Your task to perform on an android device: Check the news Image 0: 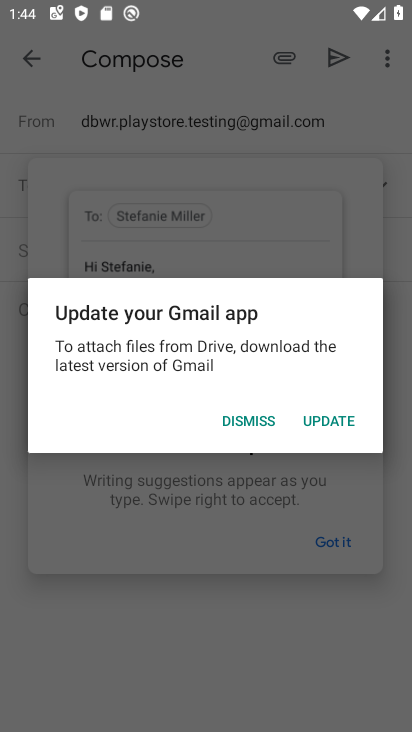
Step 0: press home button
Your task to perform on an android device: Check the news Image 1: 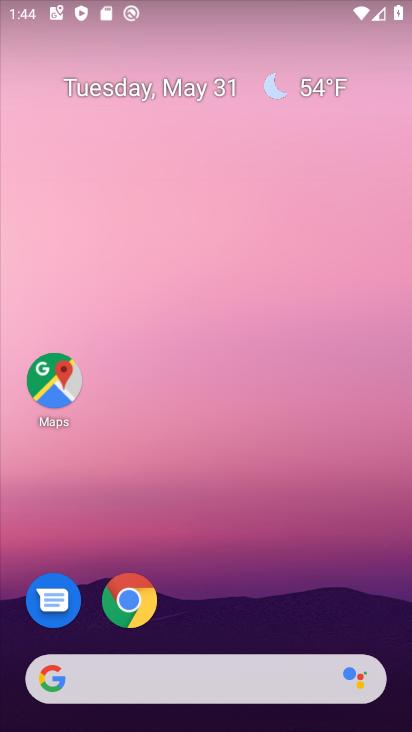
Step 1: drag from (264, 438) to (176, 18)
Your task to perform on an android device: Check the news Image 2: 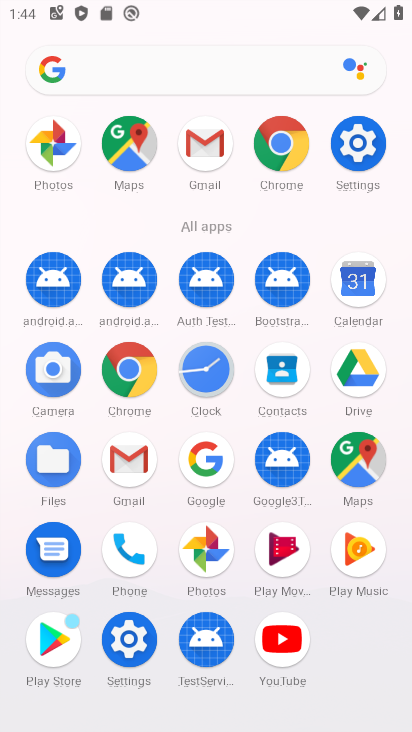
Step 2: click (199, 465)
Your task to perform on an android device: Check the news Image 3: 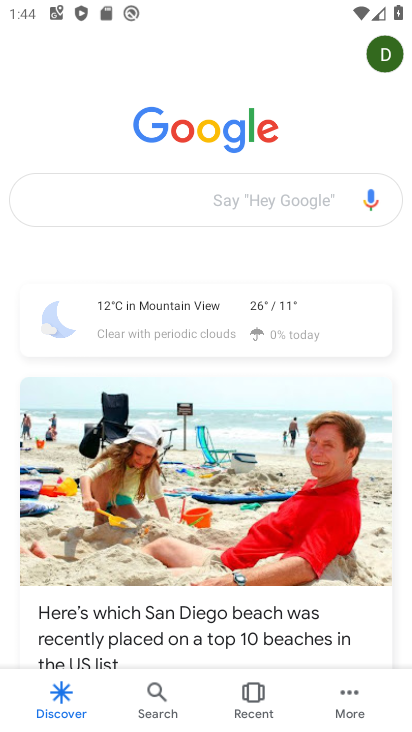
Step 3: click (211, 200)
Your task to perform on an android device: Check the news Image 4: 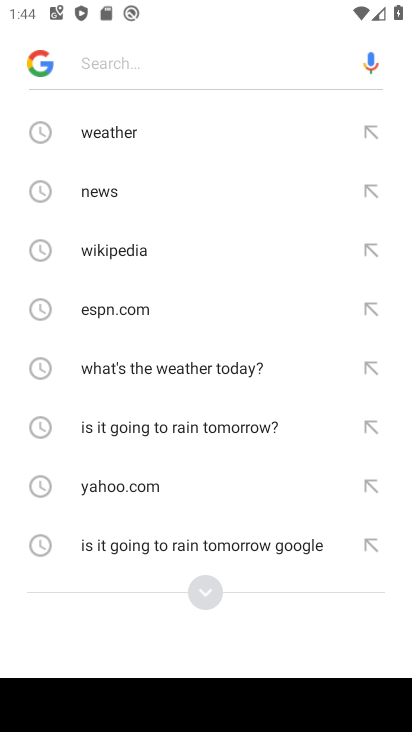
Step 4: click (148, 186)
Your task to perform on an android device: Check the news Image 5: 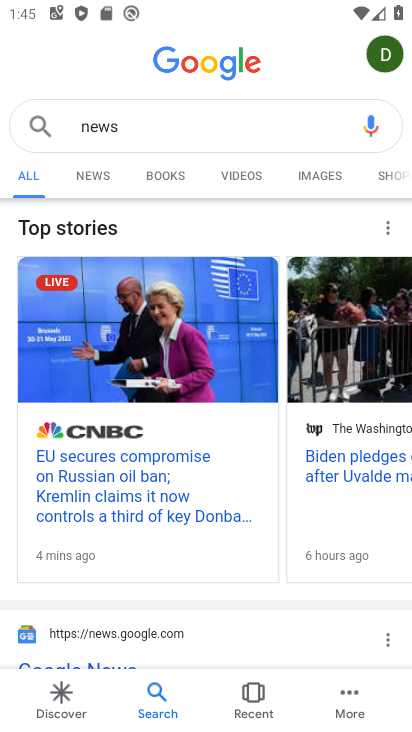
Step 5: task complete